Your task to perform on an android device: add a contact in the contacts app Image 0: 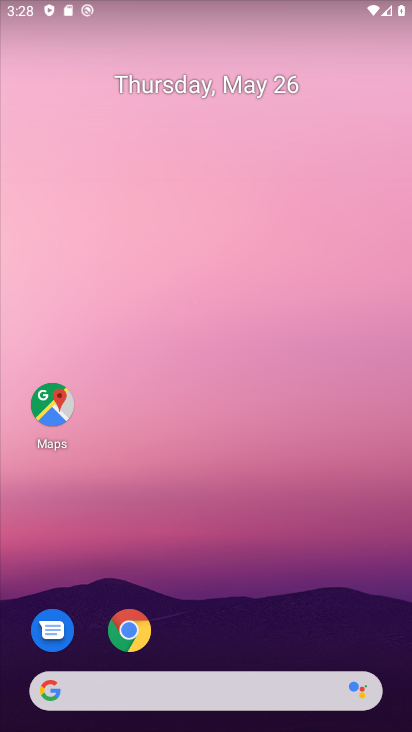
Step 0: click (252, 636)
Your task to perform on an android device: add a contact in the contacts app Image 1: 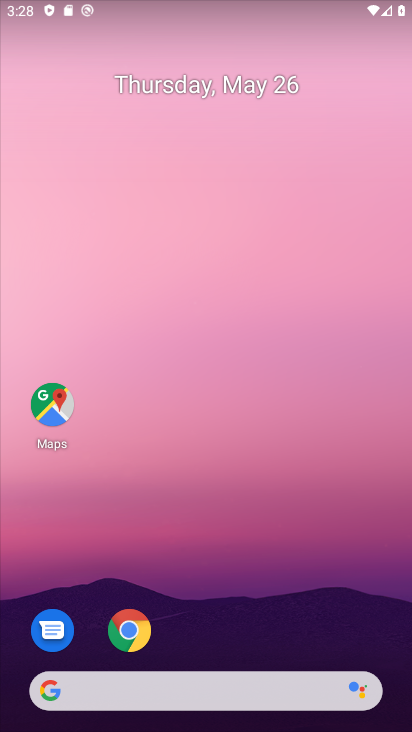
Step 1: drag from (252, 636) to (274, 88)
Your task to perform on an android device: add a contact in the contacts app Image 2: 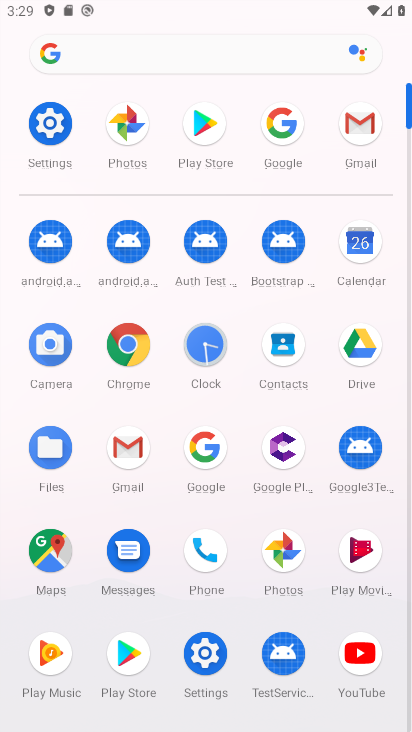
Step 2: click (284, 346)
Your task to perform on an android device: add a contact in the contacts app Image 3: 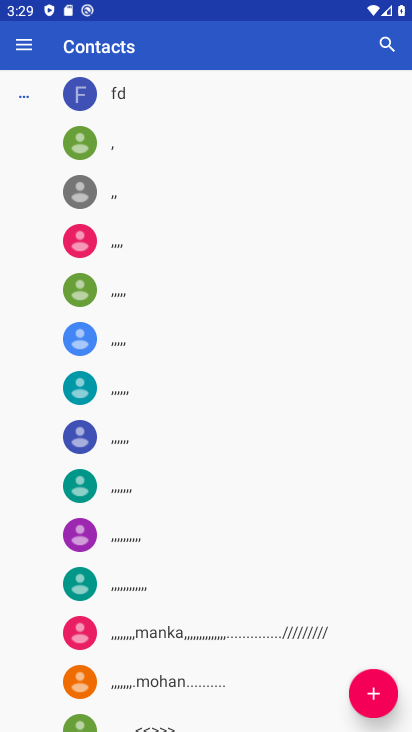
Step 3: click (373, 693)
Your task to perform on an android device: add a contact in the contacts app Image 4: 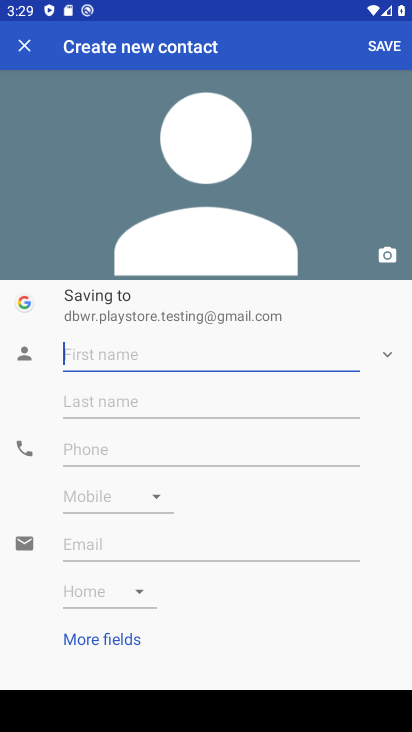
Step 4: click (310, 354)
Your task to perform on an android device: add a contact in the contacts app Image 5: 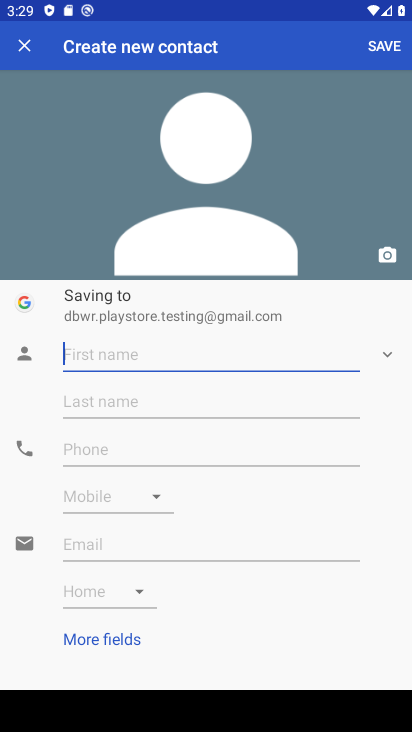
Step 5: type "khulbhooshan"
Your task to perform on an android device: add a contact in the contacts app Image 6: 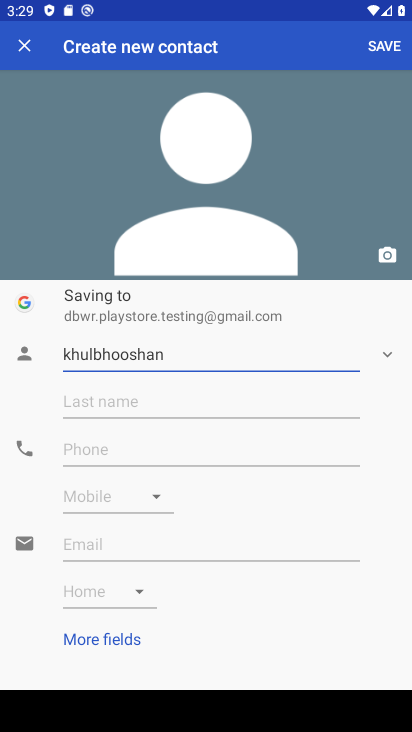
Step 6: click (213, 400)
Your task to perform on an android device: add a contact in the contacts app Image 7: 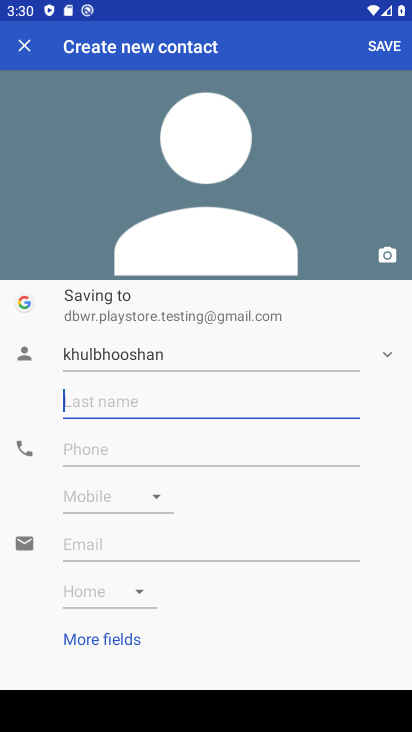
Step 7: type "kharbanda"
Your task to perform on an android device: add a contact in the contacts app Image 8: 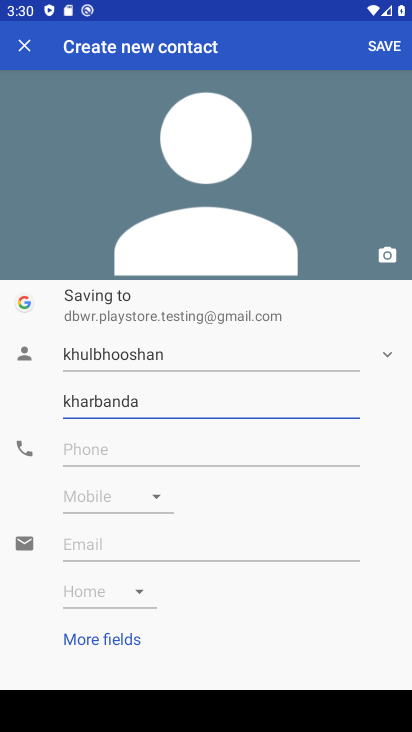
Step 8: click (227, 443)
Your task to perform on an android device: add a contact in the contacts app Image 9: 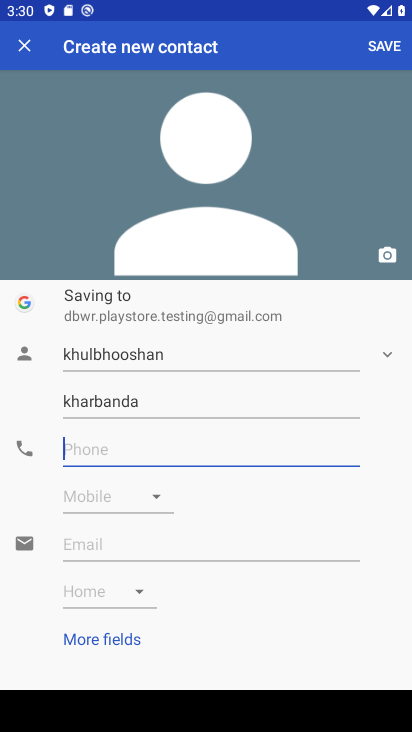
Step 9: type "09977554411"
Your task to perform on an android device: add a contact in the contacts app Image 10: 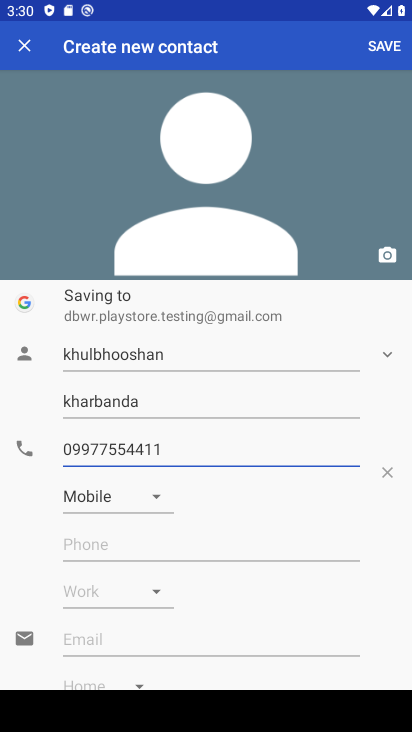
Step 10: click (390, 47)
Your task to perform on an android device: add a contact in the contacts app Image 11: 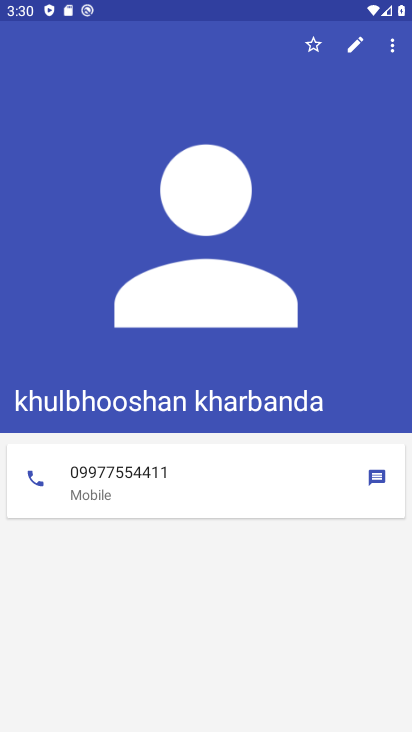
Step 11: task complete